Your task to perform on an android device: toggle wifi Image 0: 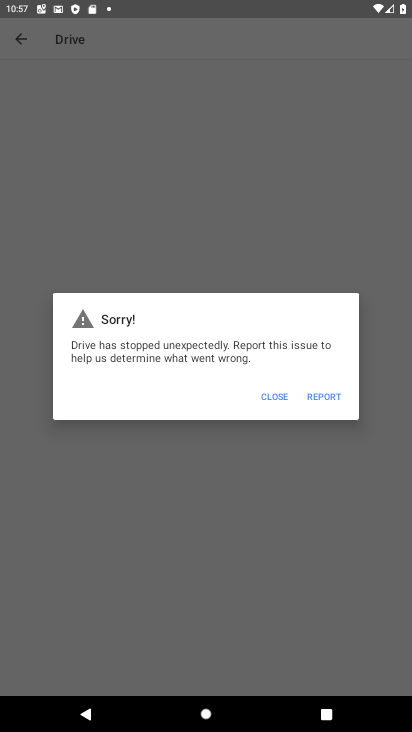
Step 0: press home button
Your task to perform on an android device: toggle wifi Image 1: 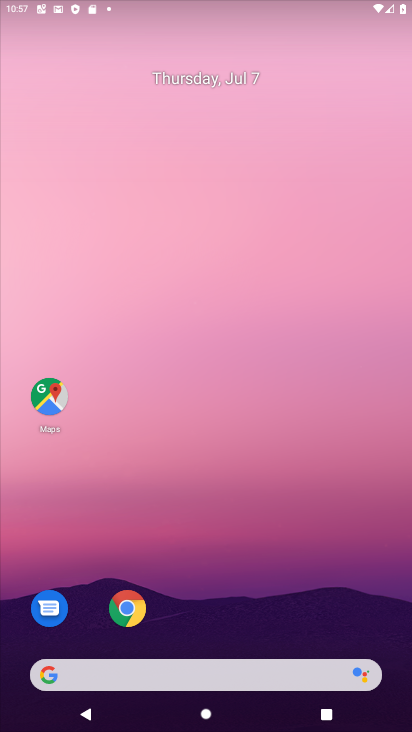
Step 1: drag from (361, 622) to (322, 79)
Your task to perform on an android device: toggle wifi Image 2: 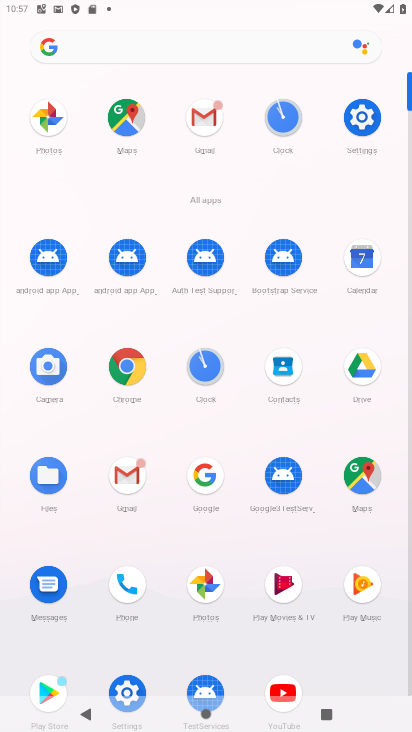
Step 2: click (259, 368)
Your task to perform on an android device: toggle wifi Image 3: 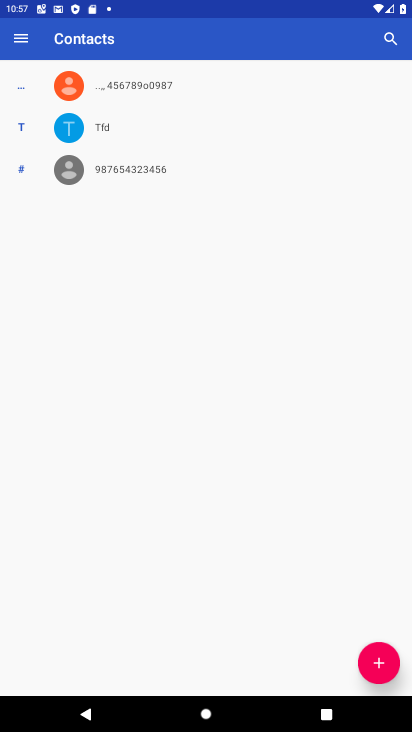
Step 3: drag from (240, 6) to (206, 588)
Your task to perform on an android device: toggle wifi Image 4: 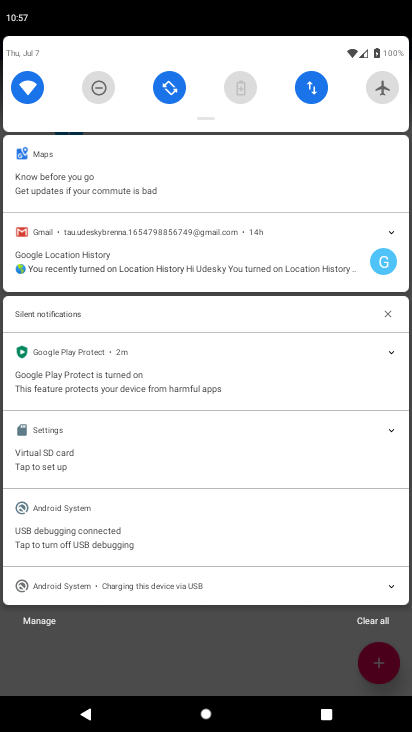
Step 4: drag from (180, 118) to (168, 432)
Your task to perform on an android device: toggle wifi Image 5: 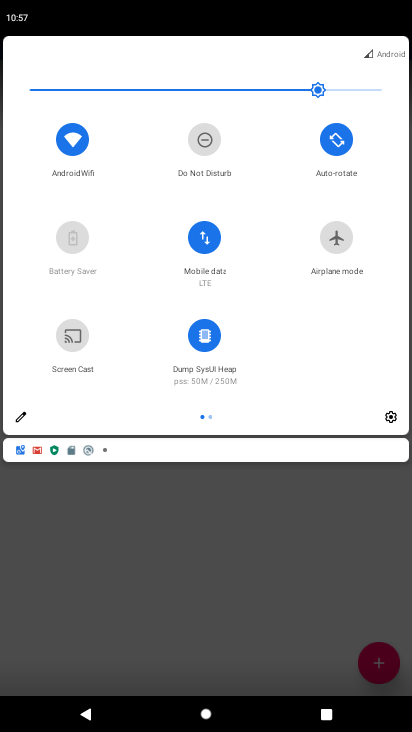
Step 5: click (46, 147)
Your task to perform on an android device: toggle wifi Image 6: 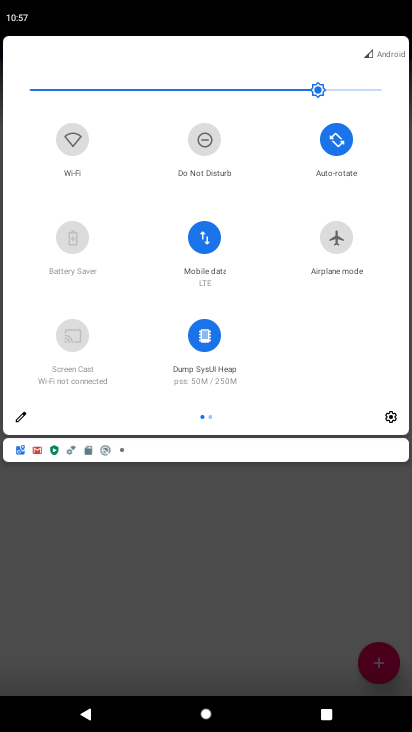
Step 6: task complete